Your task to perform on an android device: Go to Wikipedia Image 0: 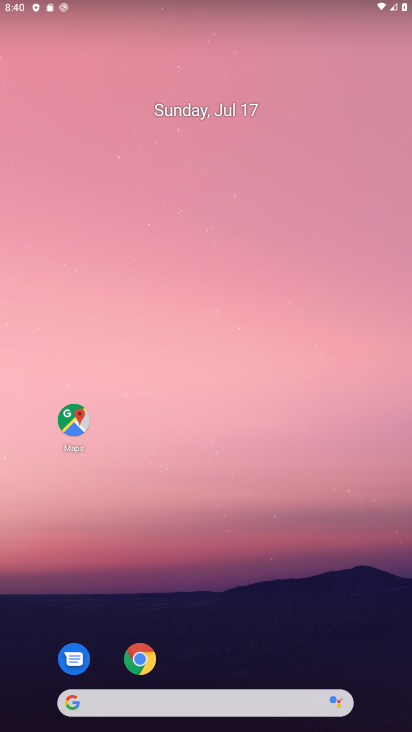
Step 0: click (139, 658)
Your task to perform on an android device: Go to Wikipedia Image 1: 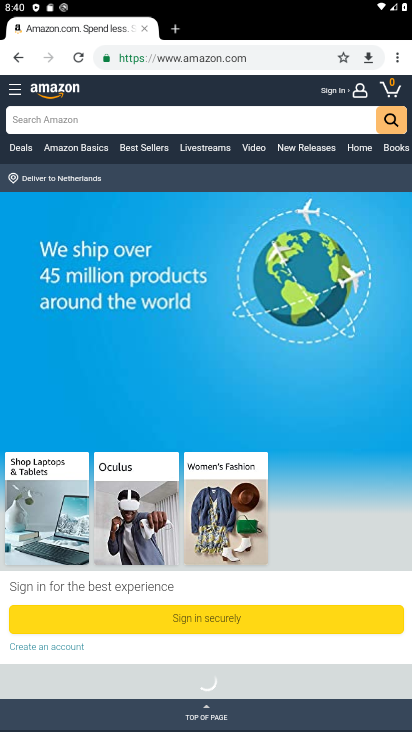
Step 1: click (288, 54)
Your task to perform on an android device: Go to Wikipedia Image 2: 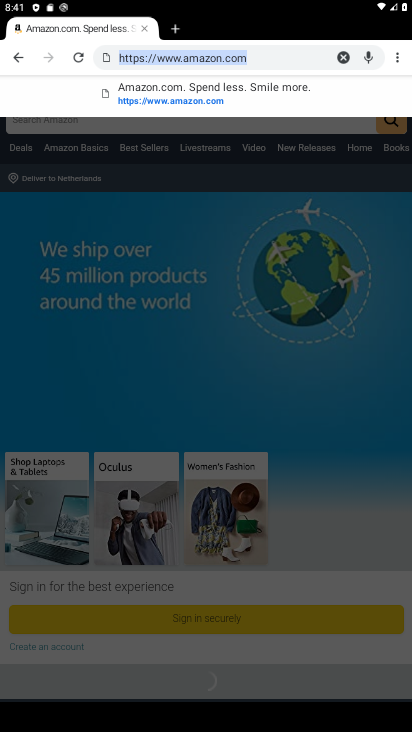
Step 2: type "Wikipedia"
Your task to perform on an android device: Go to Wikipedia Image 3: 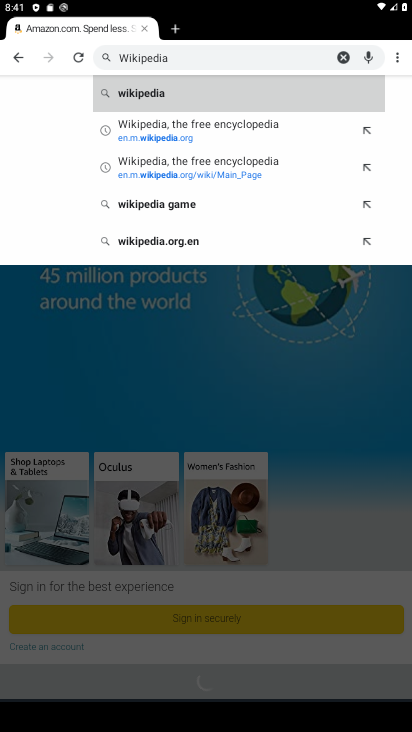
Step 3: click (189, 125)
Your task to perform on an android device: Go to Wikipedia Image 4: 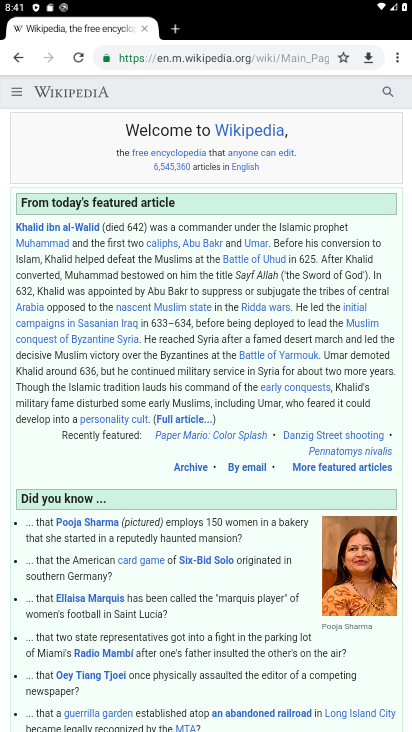
Step 4: task complete